Your task to perform on an android device: Search for macbook on bestbuy, select the first entry, and add it to the cart. Image 0: 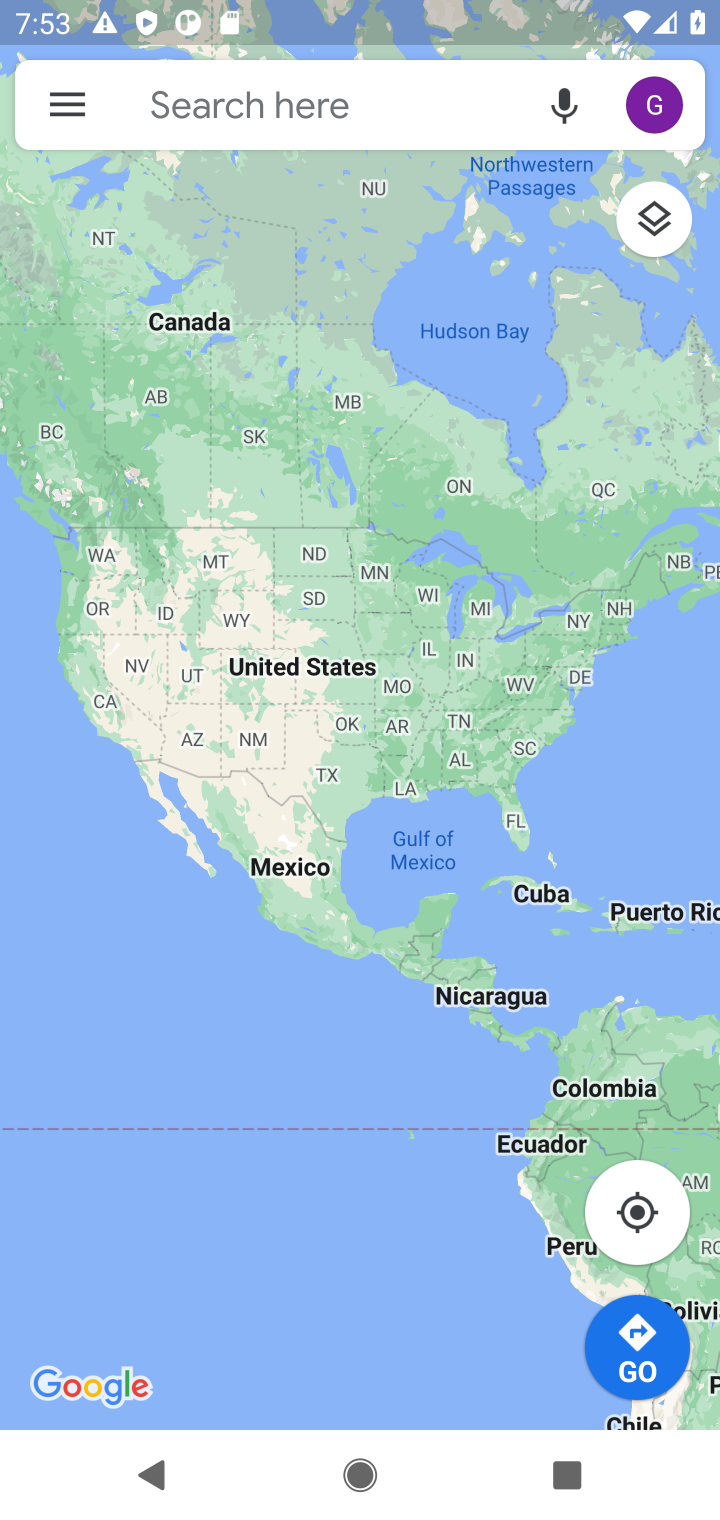
Step 0: press home button
Your task to perform on an android device: Search for macbook on bestbuy, select the first entry, and add it to the cart. Image 1: 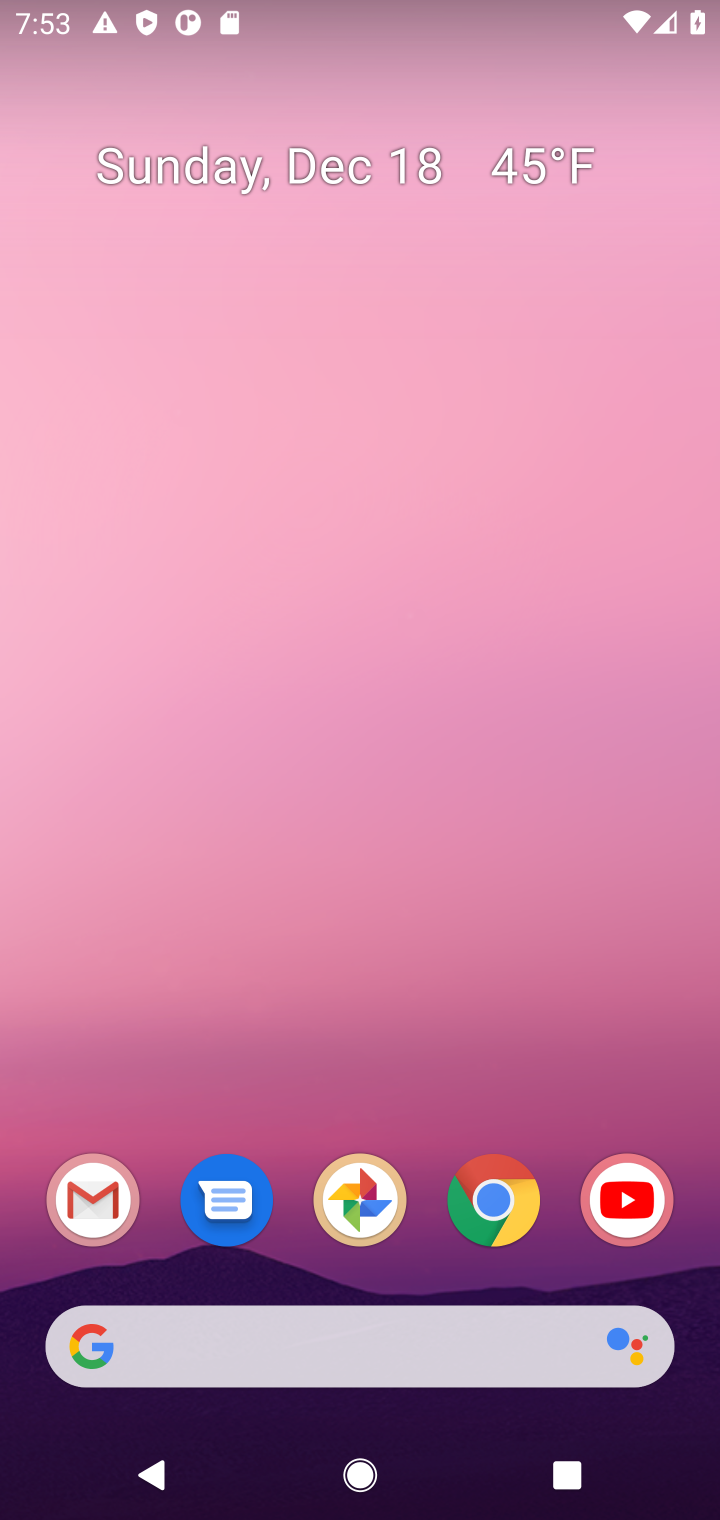
Step 1: click (483, 1203)
Your task to perform on an android device: Search for macbook on bestbuy, select the first entry, and add it to the cart. Image 2: 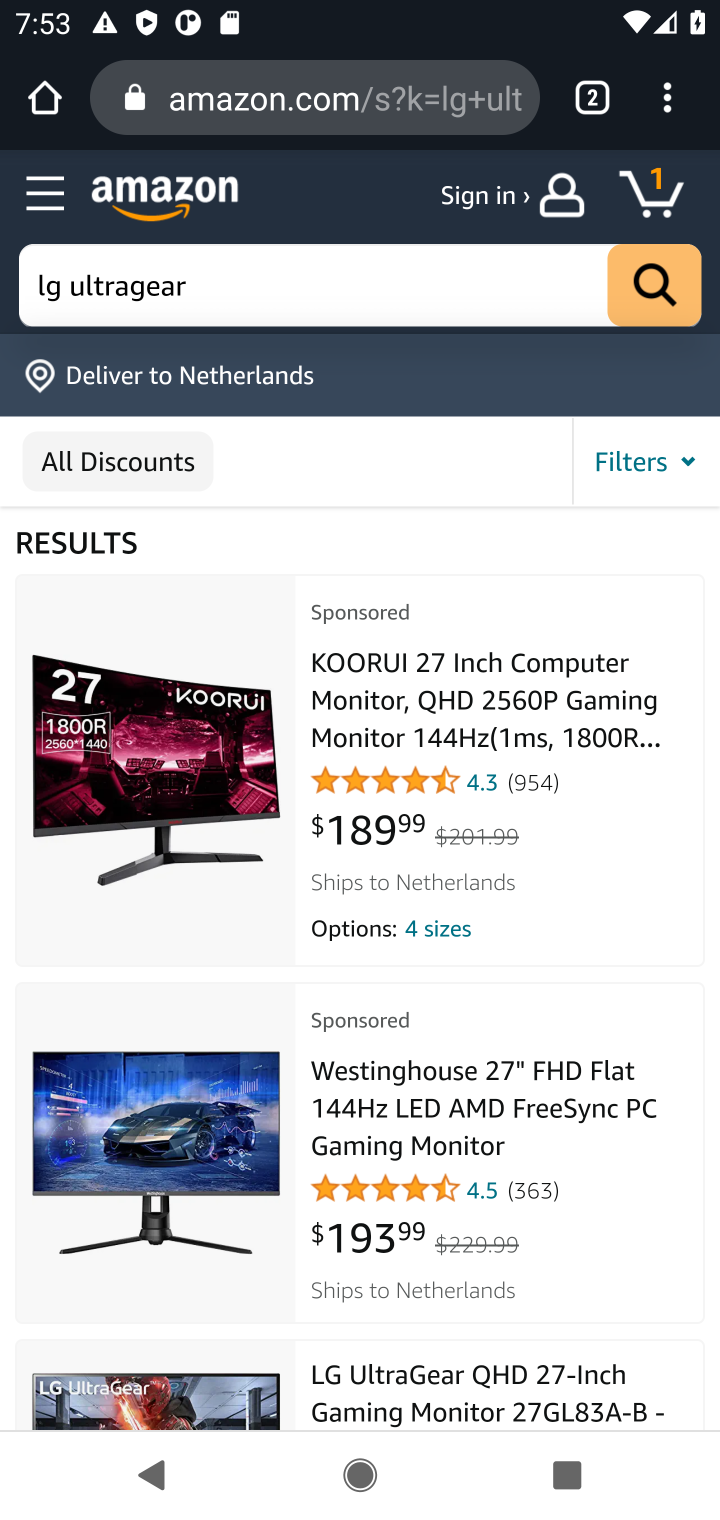
Step 2: click (233, 102)
Your task to perform on an android device: Search for macbook on bestbuy, select the first entry, and add it to the cart. Image 3: 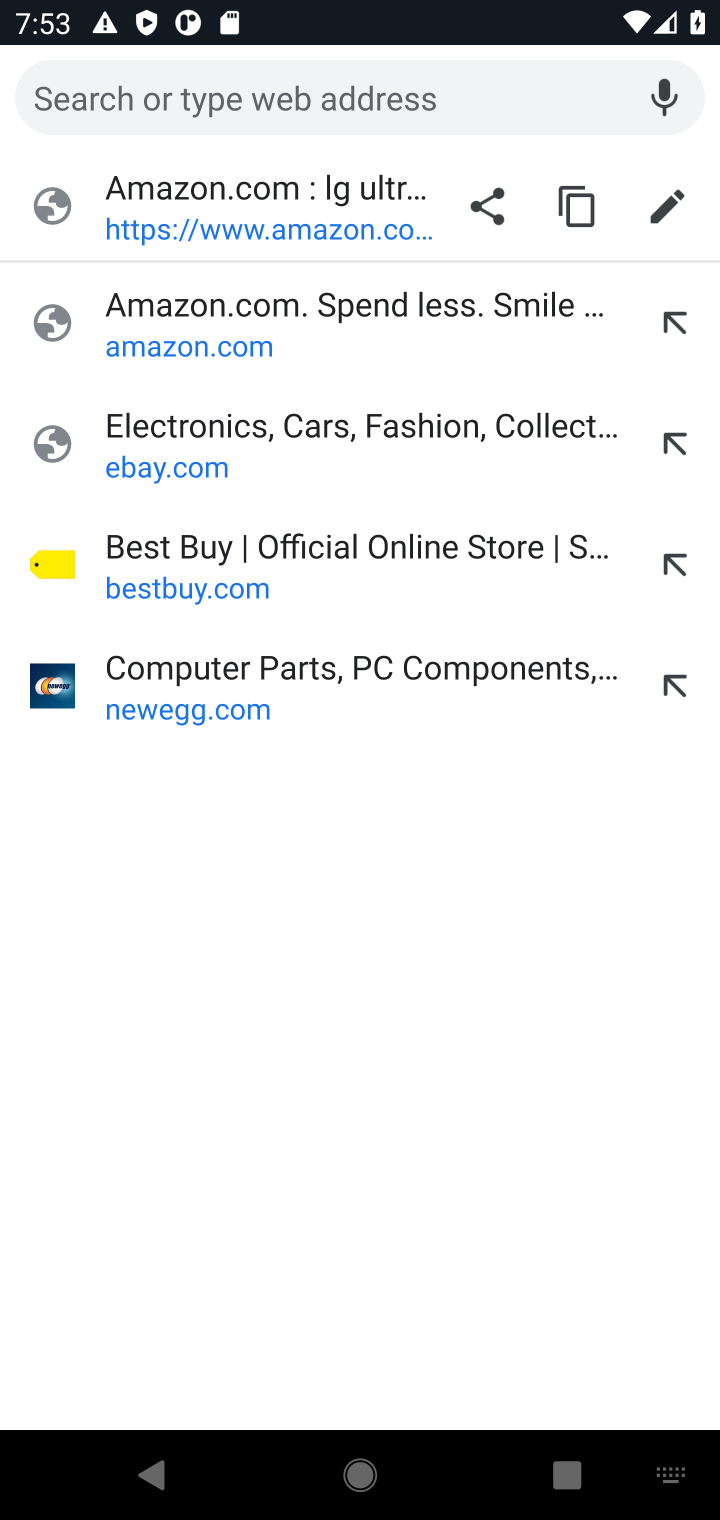
Step 3: click (137, 576)
Your task to perform on an android device: Search for macbook on bestbuy, select the first entry, and add it to the cart. Image 4: 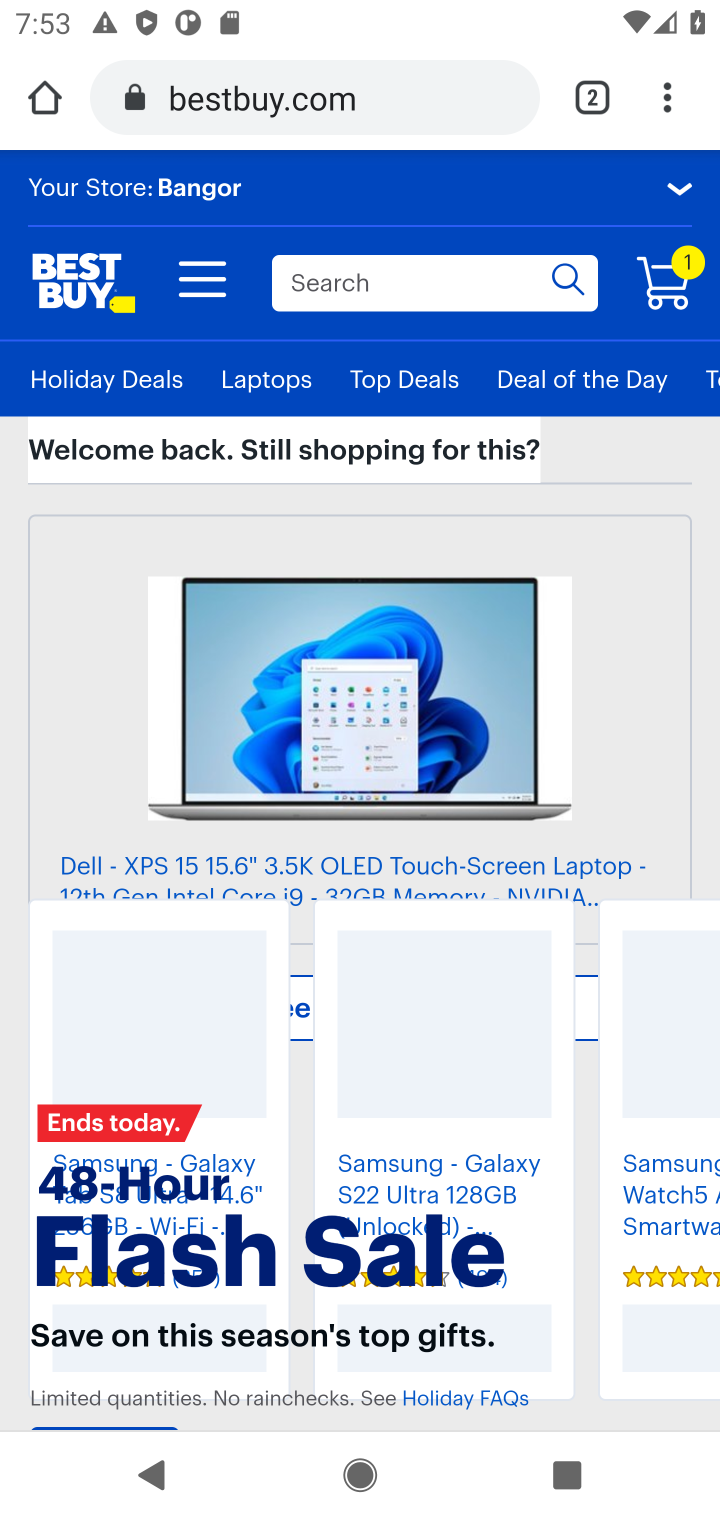
Step 4: click (348, 288)
Your task to perform on an android device: Search for macbook on bestbuy, select the first entry, and add it to the cart. Image 5: 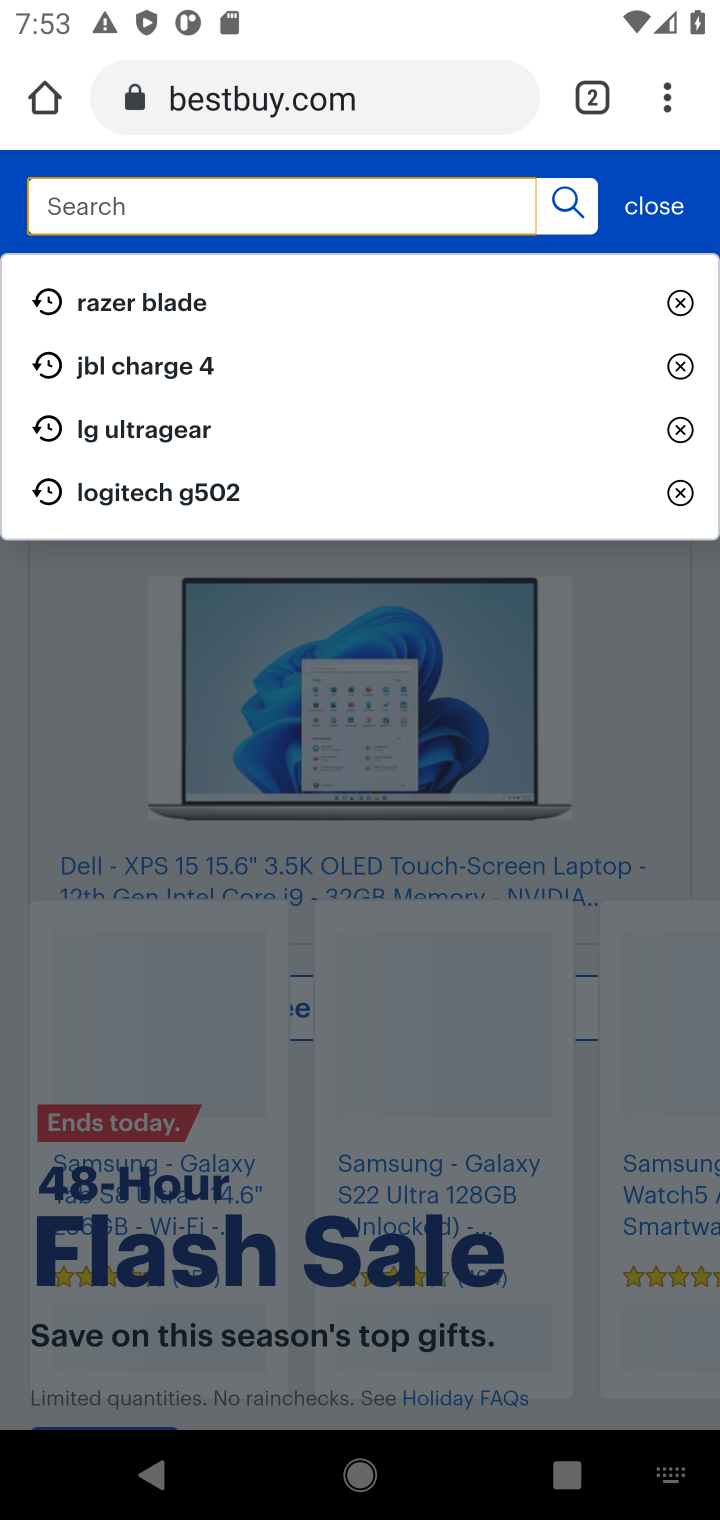
Step 5: type "macbook"
Your task to perform on an android device: Search for macbook on bestbuy, select the first entry, and add it to the cart. Image 6: 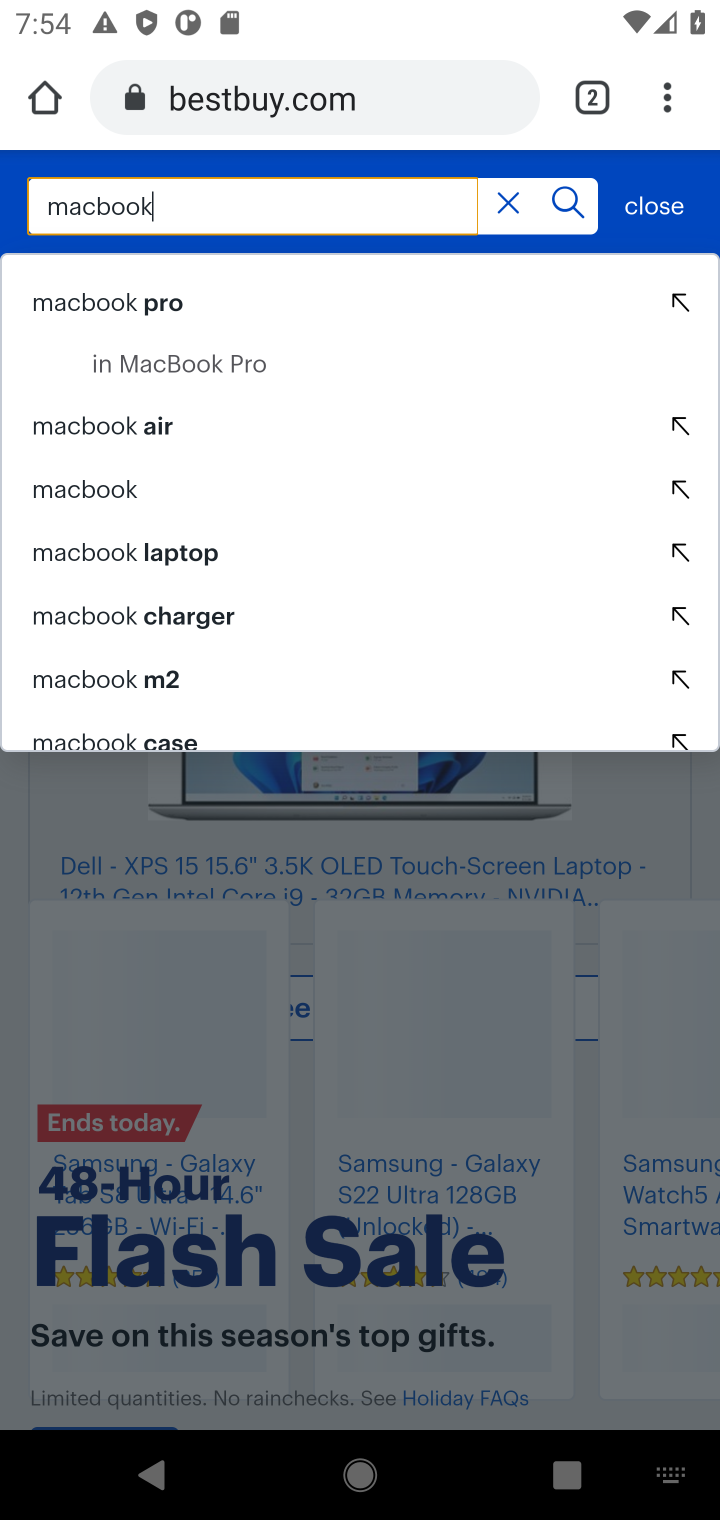
Step 6: click (94, 501)
Your task to perform on an android device: Search for macbook on bestbuy, select the first entry, and add it to the cart. Image 7: 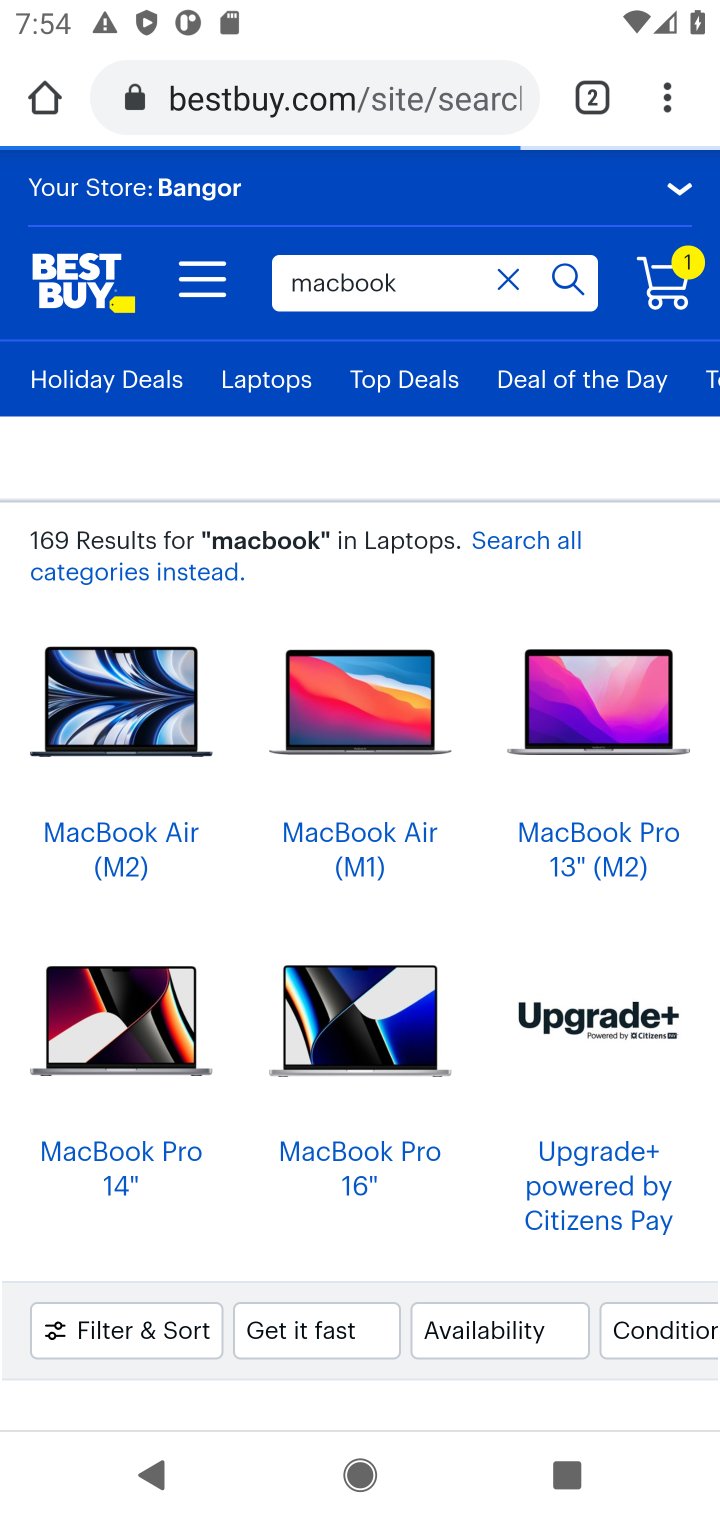
Step 7: drag from (261, 1167) to (268, 343)
Your task to perform on an android device: Search for macbook on bestbuy, select the first entry, and add it to the cart. Image 8: 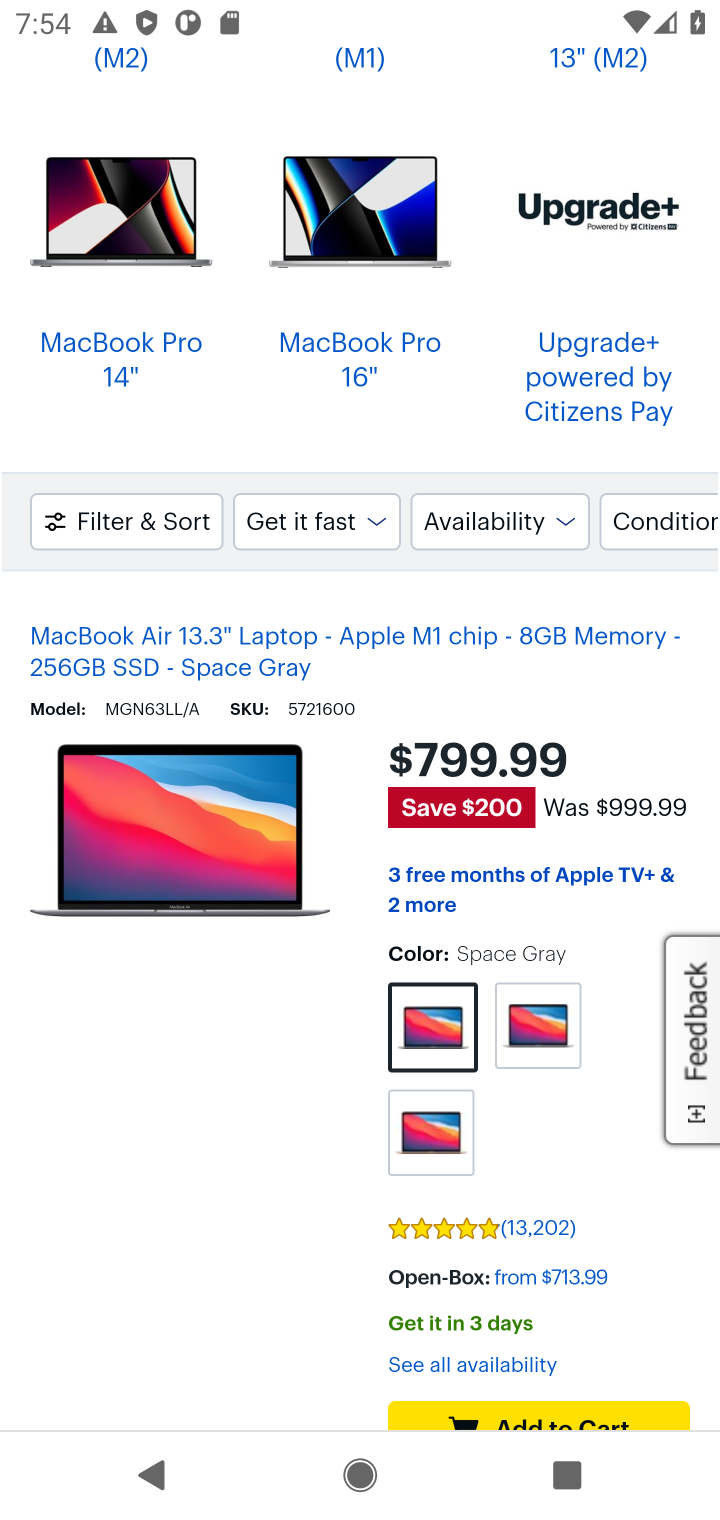
Step 8: drag from (225, 1119) to (200, 786)
Your task to perform on an android device: Search for macbook on bestbuy, select the first entry, and add it to the cart. Image 9: 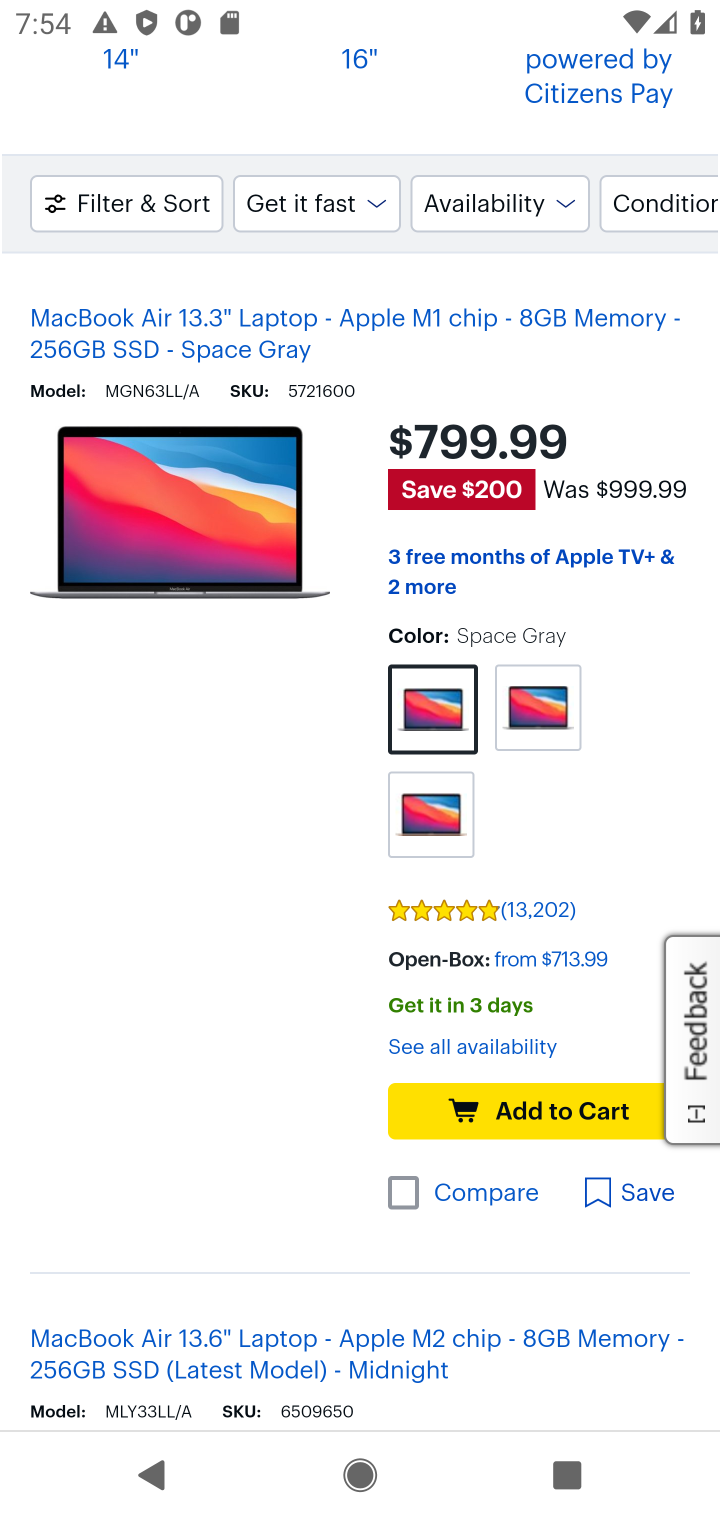
Step 9: click (446, 1113)
Your task to perform on an android device: Search for macbook on bestbuy, select the first entry, and add it to the cart. Image 10: 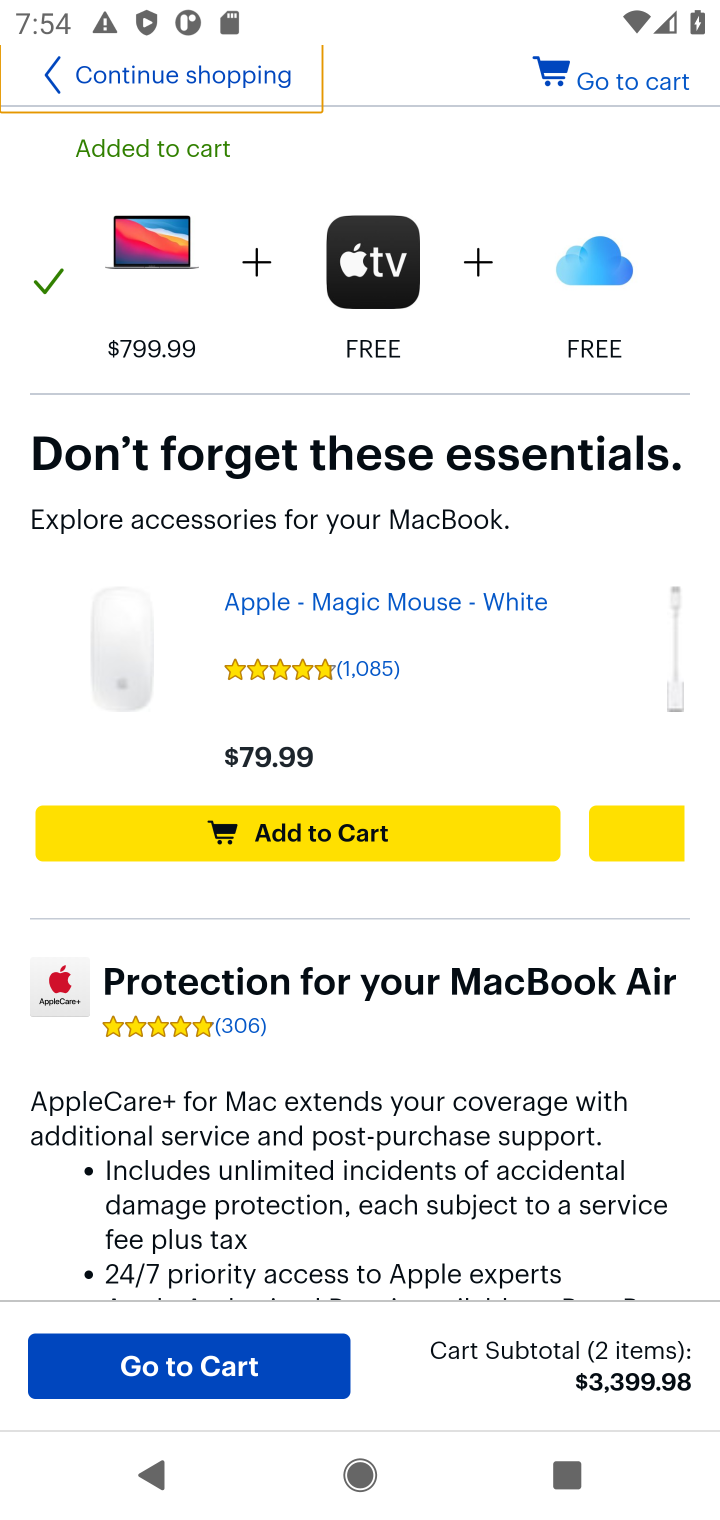
Step 10: task complete